Your task to perform on an android device: Open internet settings Image 0: 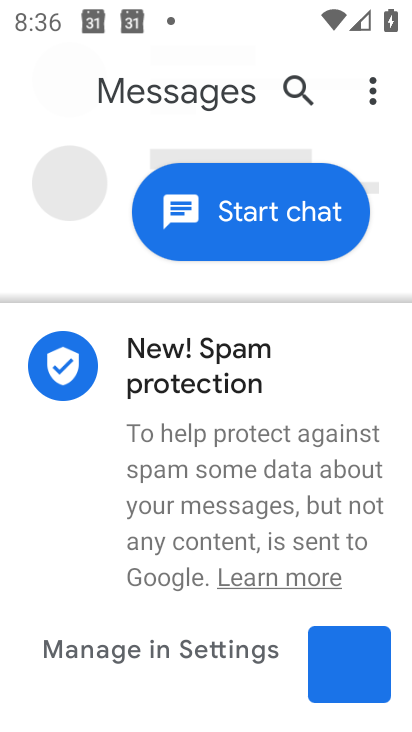
Step 0: press home button
Your task to perform on an android device: Open internet settings Image 1: 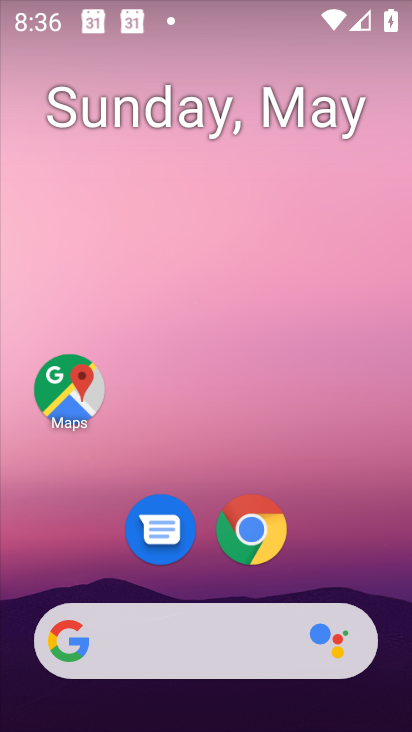
Step 1: click (268, 554)
Your task to perform on an android device: Open internet settings Image 2: 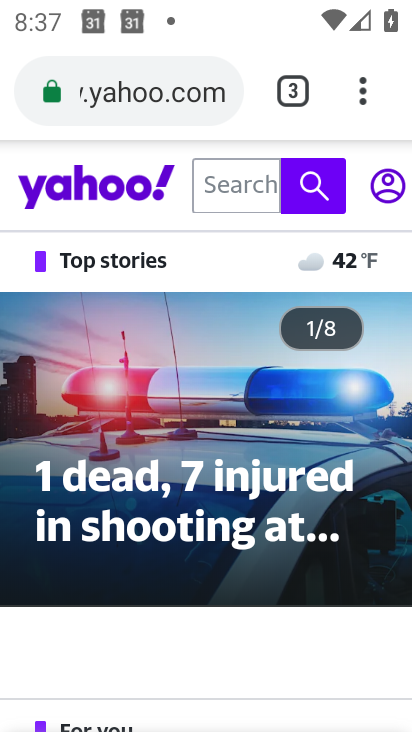
Step 2: press home button
Your task to perform on an android device: Open internet settings Image 3: 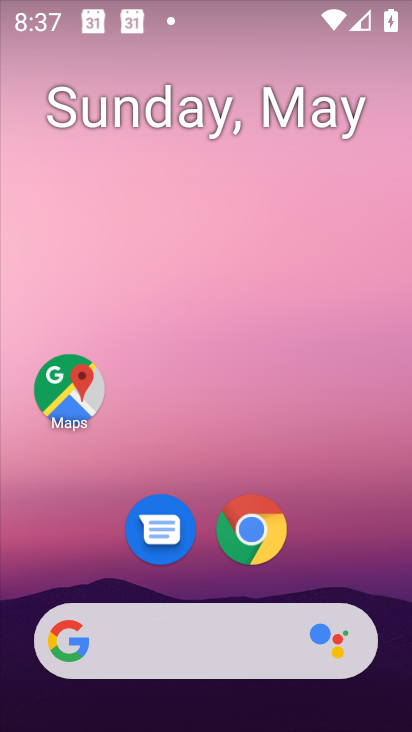
Step 3: drag from (356, 532) to (275, 15)
Your task to perform on an android device: Open internet settings Image 4: 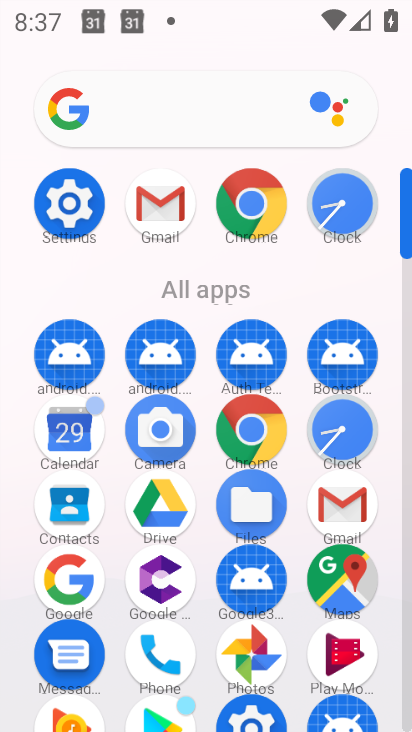
Step 4: click (61, 195)
Your task to perform on an android device: Open internet settings Image 5: 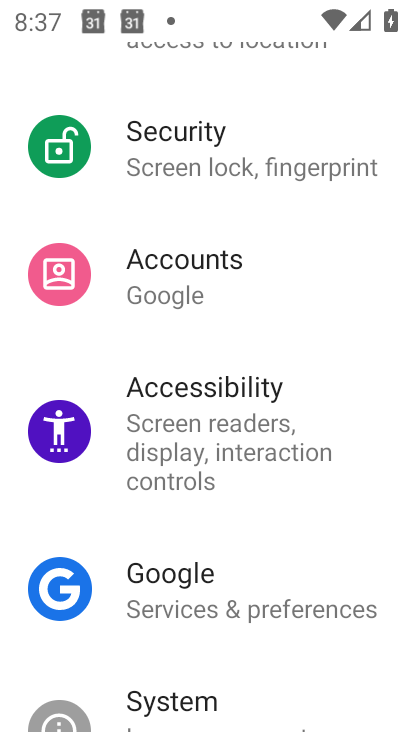
Step 5: drag from (271, 276) to (334, 711)
Your task to perform on an android device: Open internet settings Image 6: 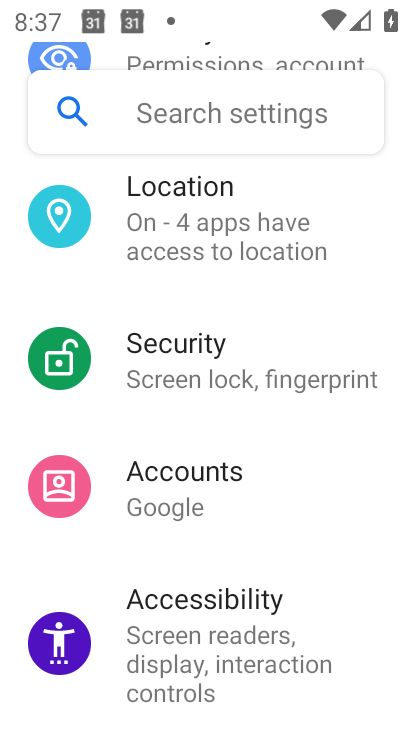
Step 6: drag from (283, 343) to (288, 731)
Your task to perform on an android device: Open internet settings Image 7: 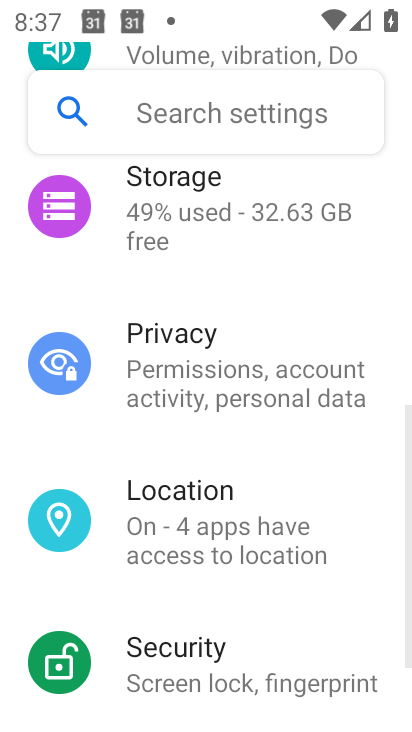
Step 7: drag from (254, 221) to (270, 729)
Your task to perform on an android device: Open internet settings Image 8: 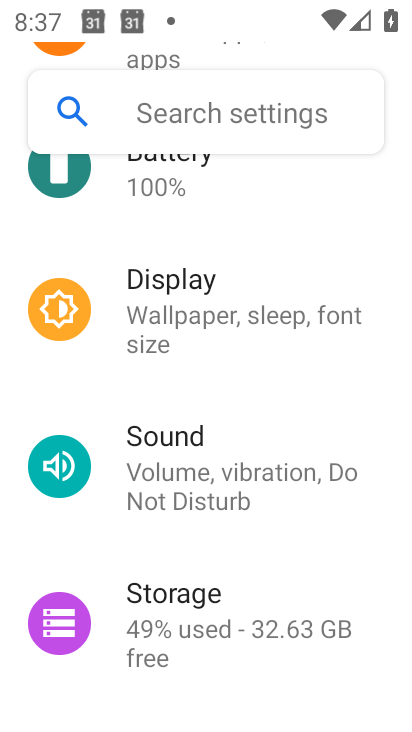
Step 8: drag from (252, 293) to (347, 729)
Your task to perform on an android device: Open internet settings Image 9: 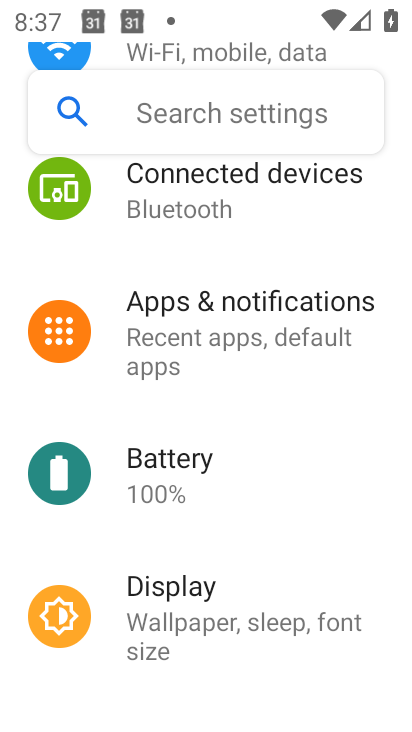
Step 9: click (292, 55)
Your task to perform on an android device: Open internet settings Image 10: 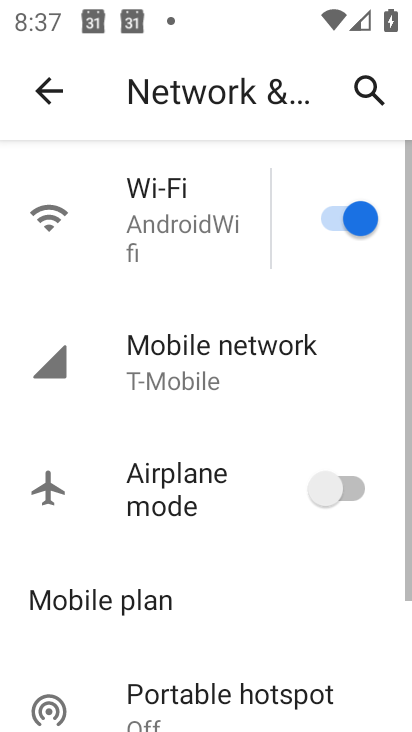
Step 10: task complete